Your task to perform on an android device: Open Maps and search for coffee Image 0: 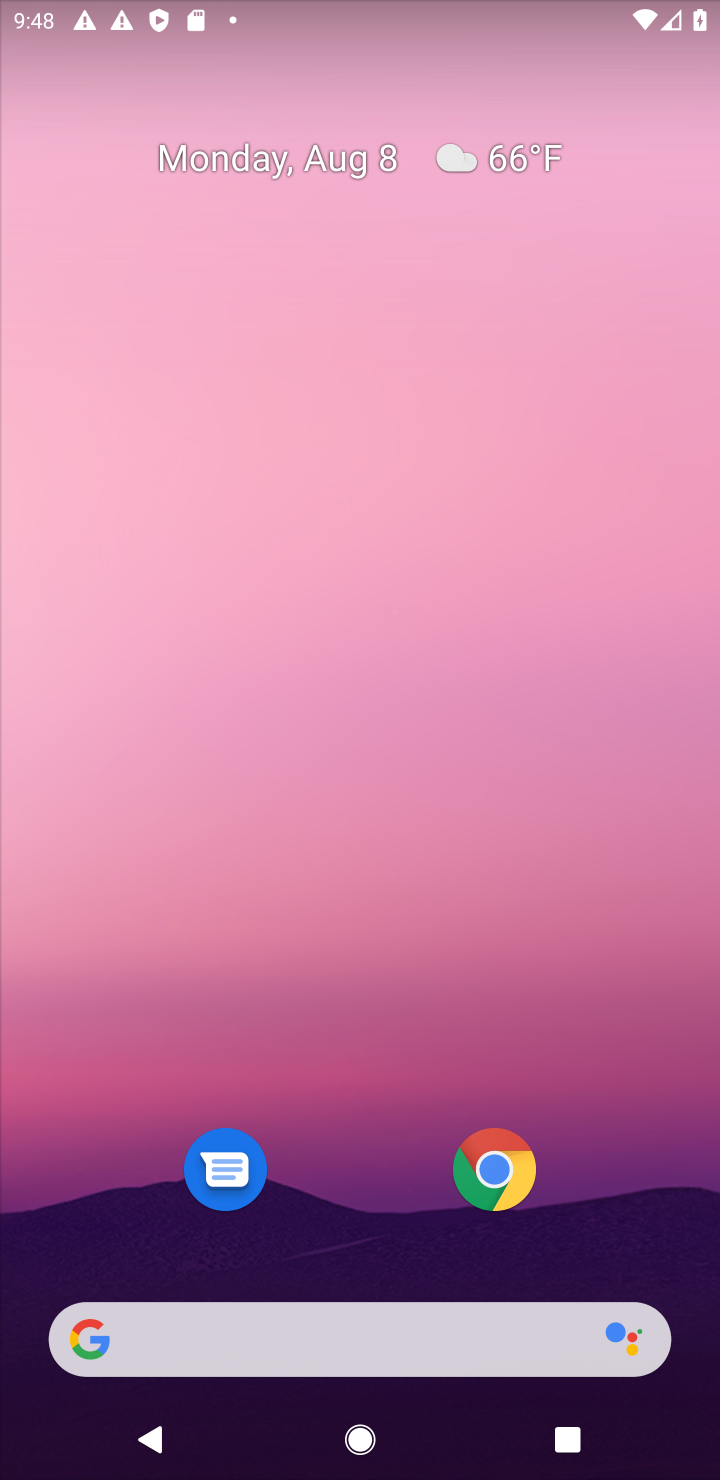
Step 0: drag from (393, 1258) to (466, 103)
Your task to perform on an android device: Open Maps and search for coffee Image 1: 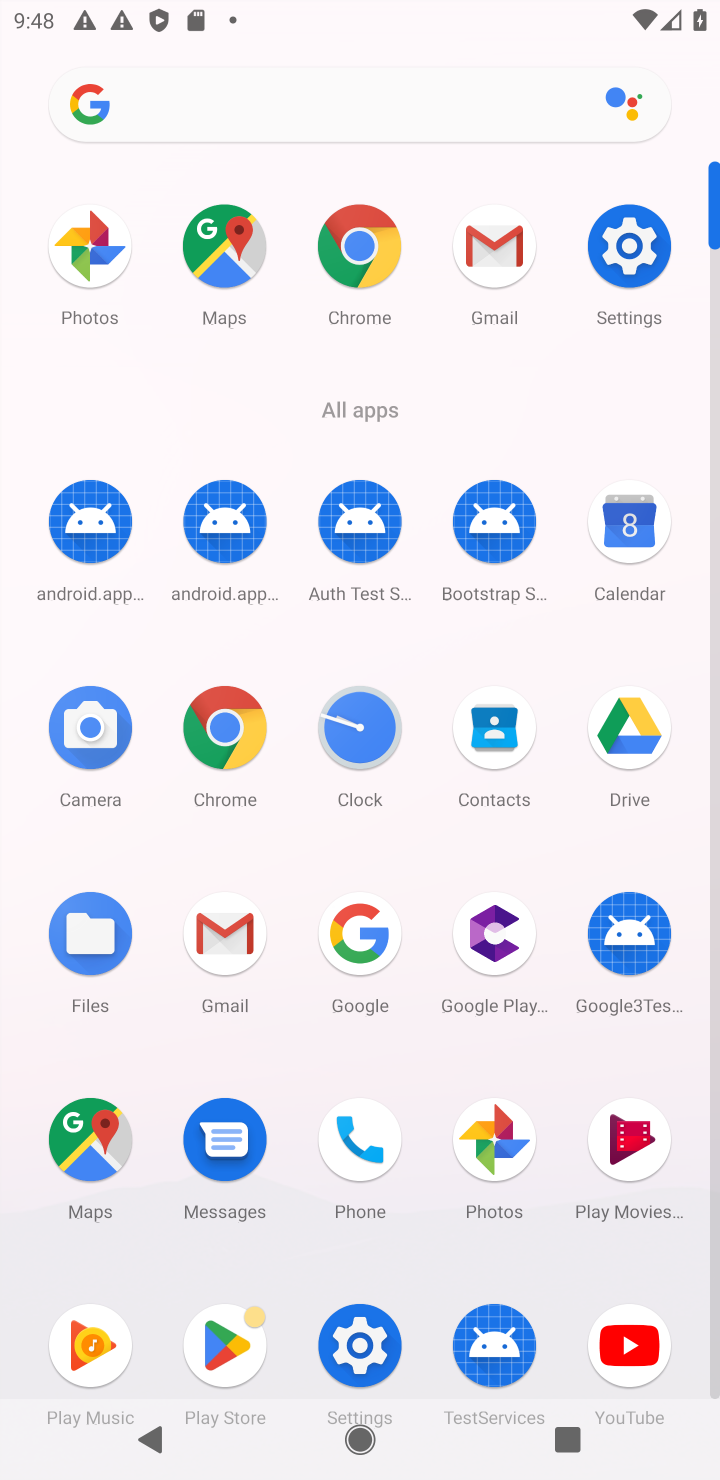
Step 1: click (235, 236)
Your task to perform on an android device: Open Maps and search for coffee Image 2: 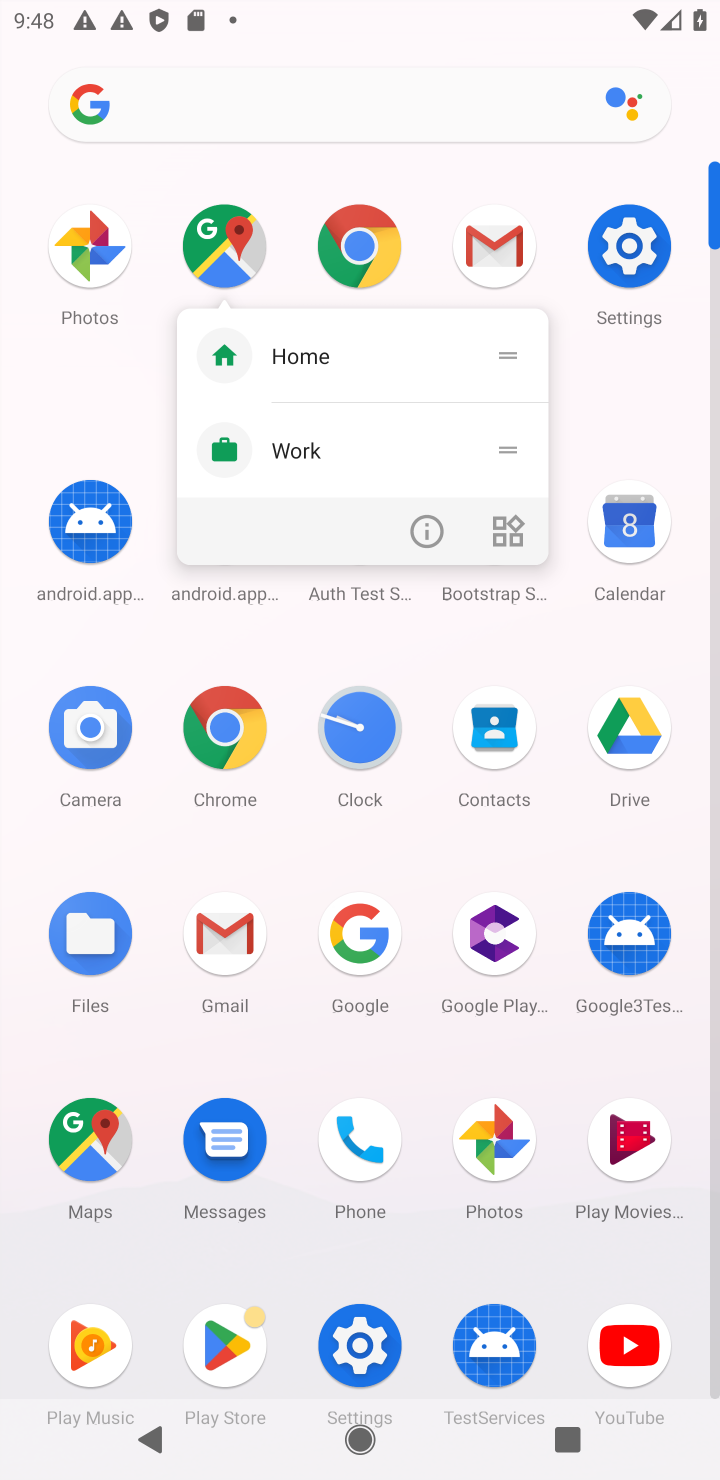
Step 2: click (235, 236)
Your task to perform on an android device: Open Maps and search for coffee Image 3: 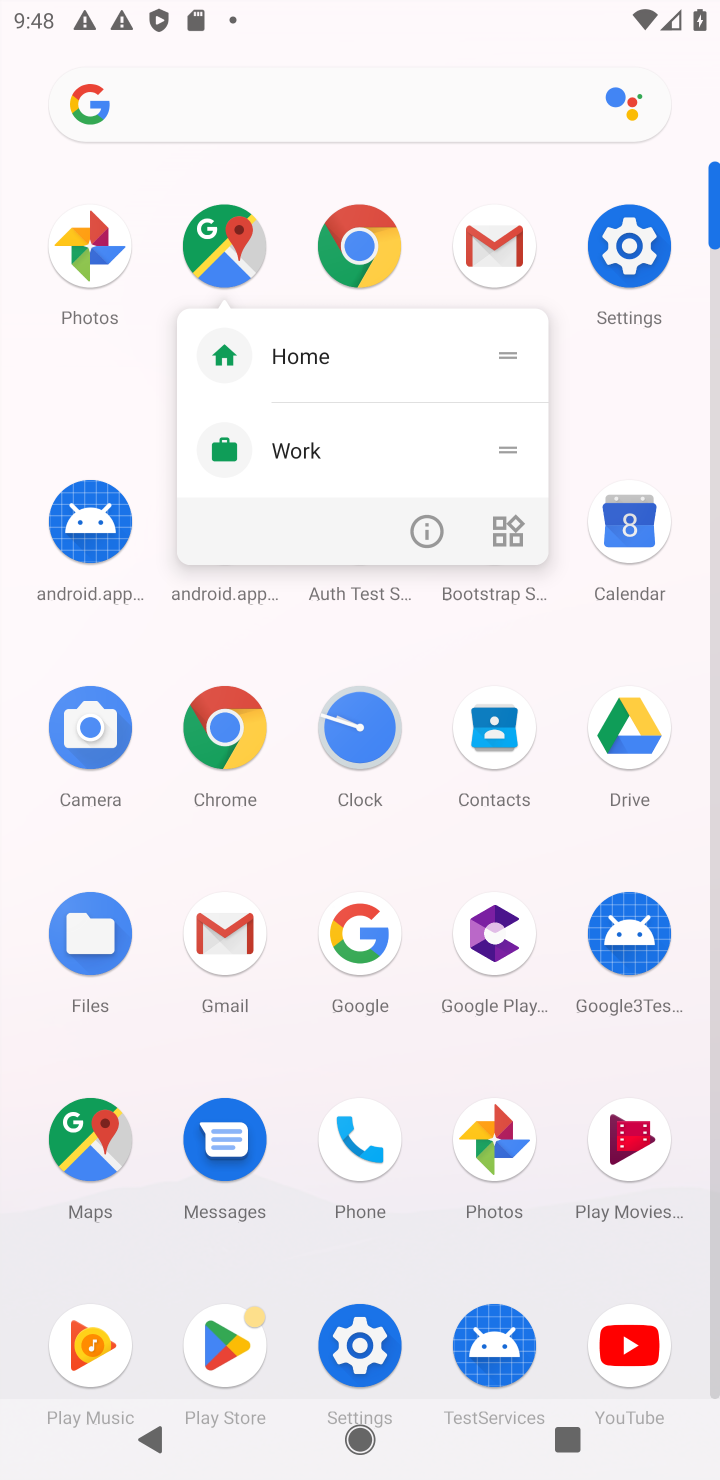
Step 3: click (232, 223)
Your task to perform on an android device: Open Maps and search for coffee Image 4: 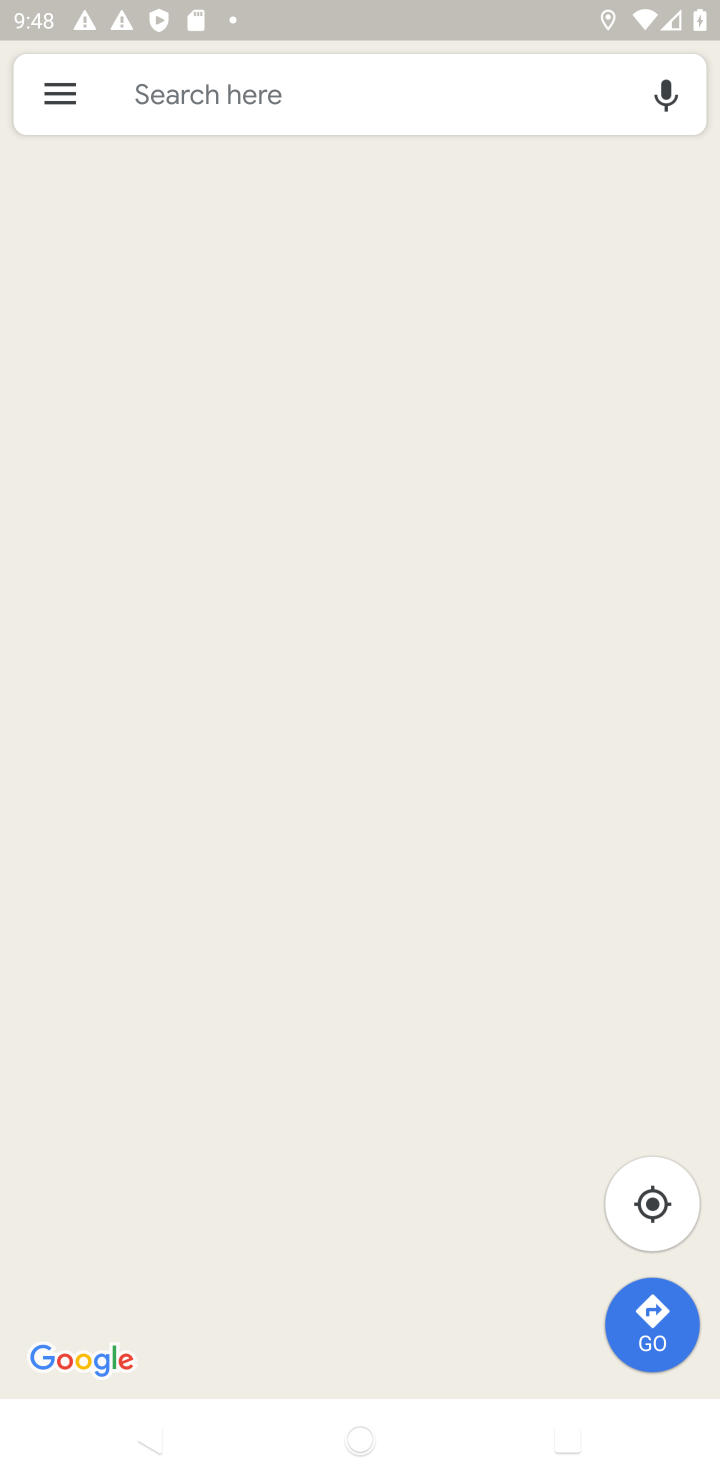
Step 4: click (240, 90)
Your task to perform on an android device: Open Maps and search for coffee Image 5: 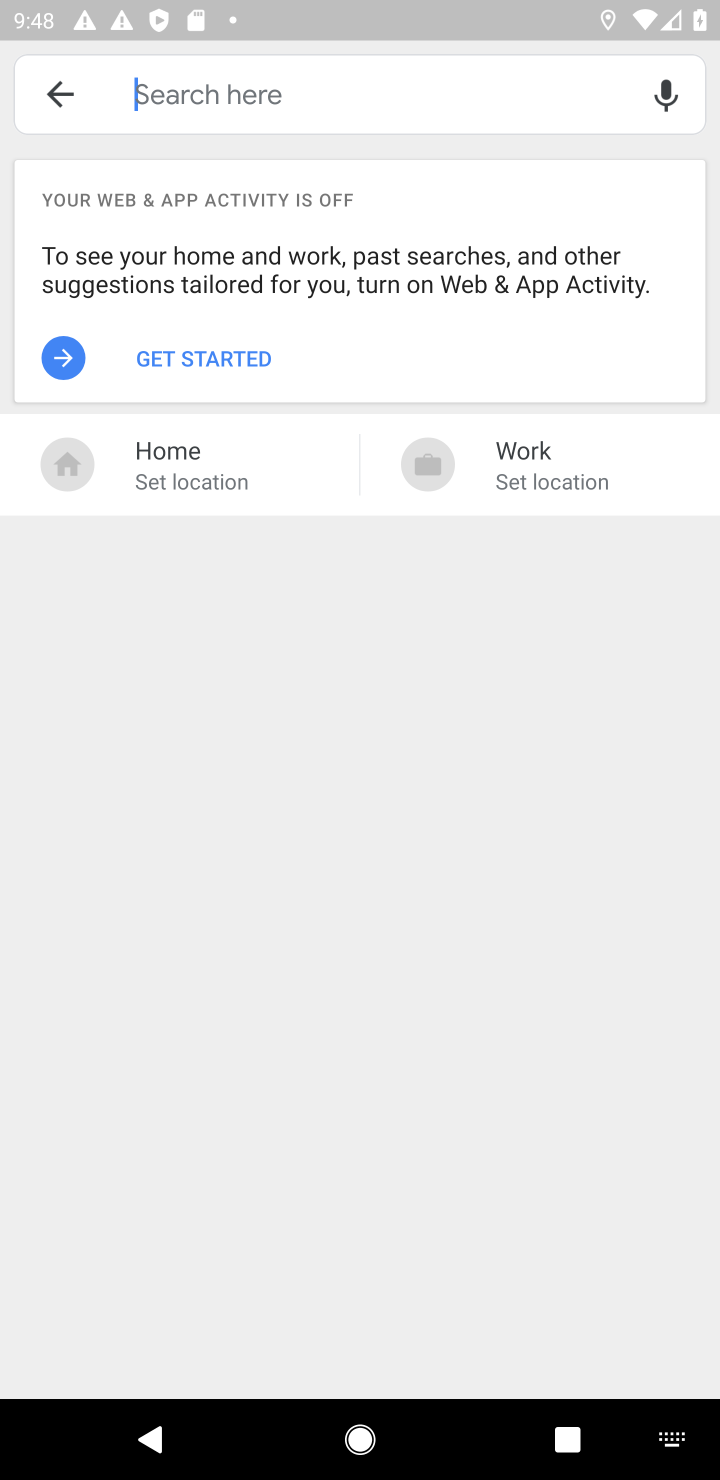
Step 5: type "coffee"
Your task to perform on an android device: Open Maps and search for coffee Image 6: 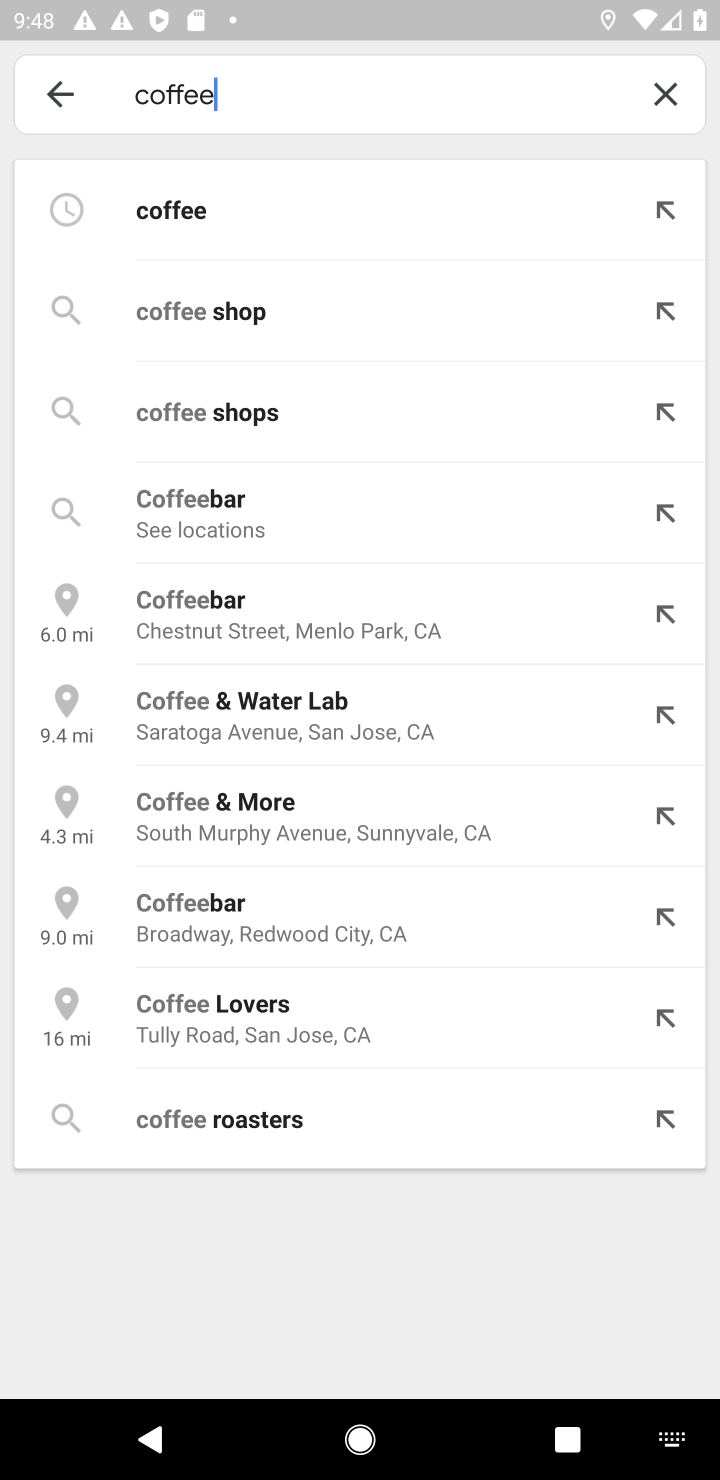
Step 6: click (289, 194)
Your task to perform on an android device: Open Maps and search for coffee Image 7: 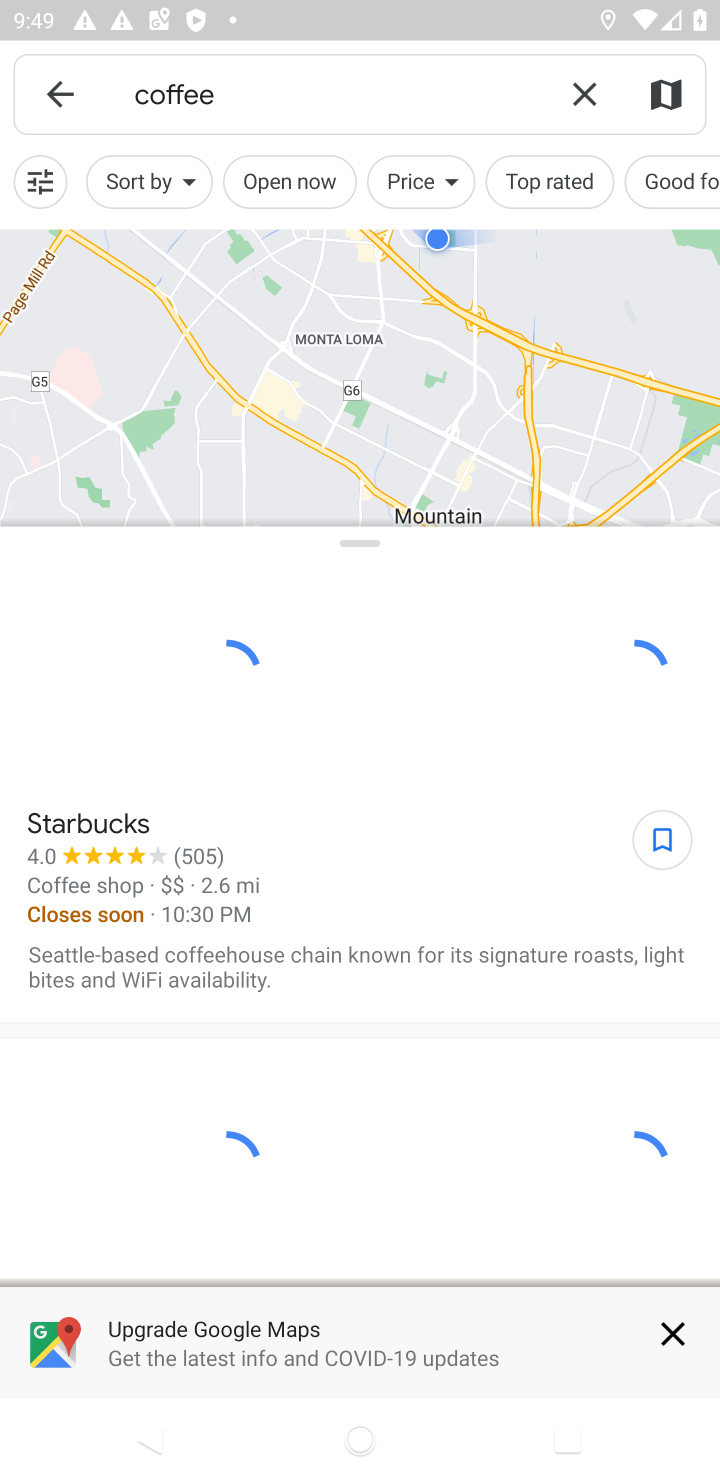
Step 7: task complete